Your task to perform on an android device: open app "ZOOM Cloud Meetings" (install if not already installed), go to login, and select forgot password Image 0: 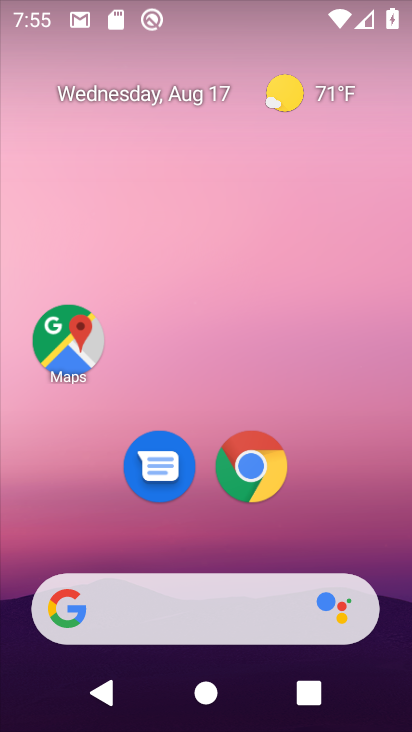
Step 0: drag from (228, 510) to (277, 5)
Your task to perform on an android device: open app "ZOOM Cloud Meetings" (install if not already installed), go to login, and select forgot password Image 1: 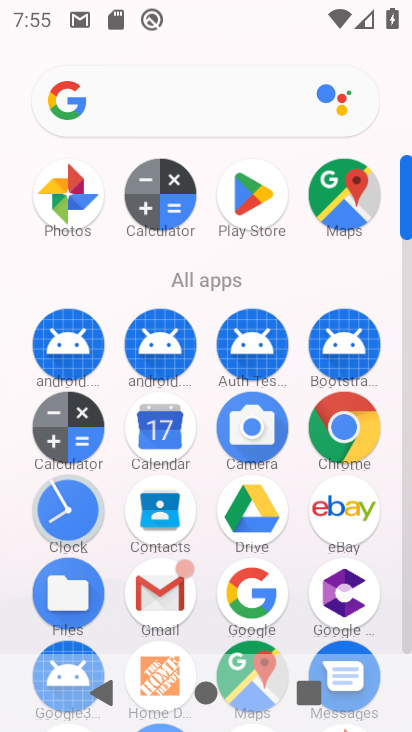
Step 1: click (251, 203)
Your task to perform on an android device: open app "ZOOM Cloud Meetings" (install if not already installed), go to login, and select forgot password Image 2: 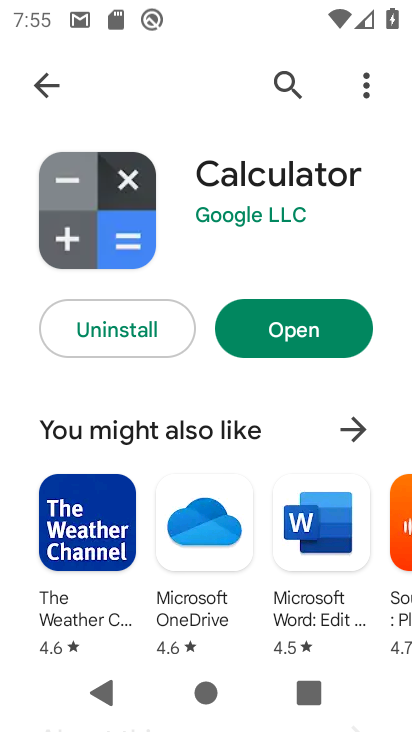
Step 2: click (44, 85)
Your task to perform on an android device: open app "ZOOM Cloud Meetings" (install if not already installed), go to login, and select forgot password Image 3: 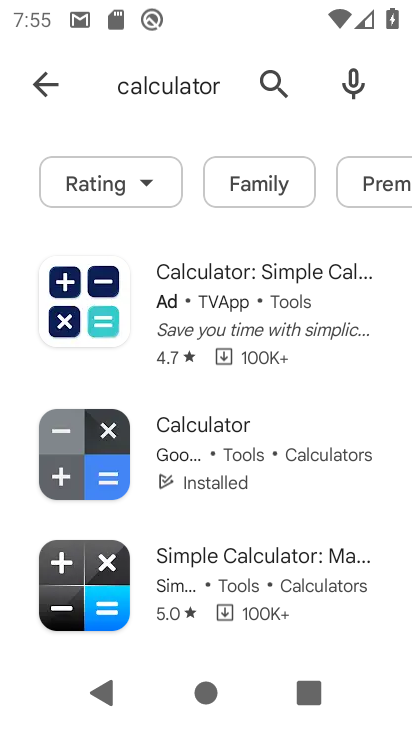
Step 3: click (152, 85)
Your task to perform on an android device: open app "ZOOM Cloud Meetings" (install if not already installed), go to login, and select forgot password Image 4: 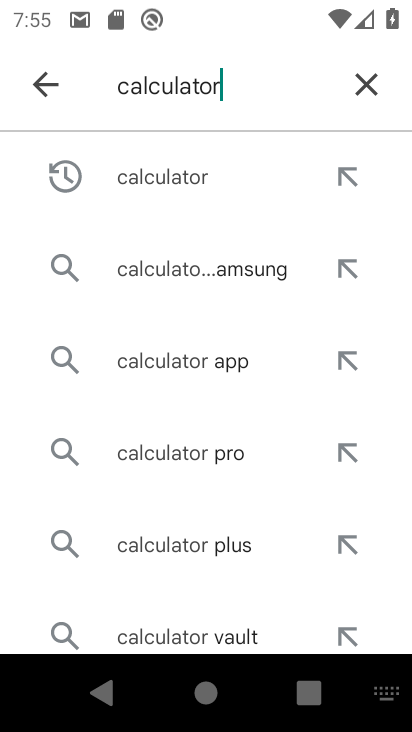
Step 4: click (370, 79)
Your task to perform on an android device: open app "ZOOM Cloud Meetings" (install if not already installed), go to login, and select forgot password Image 5: 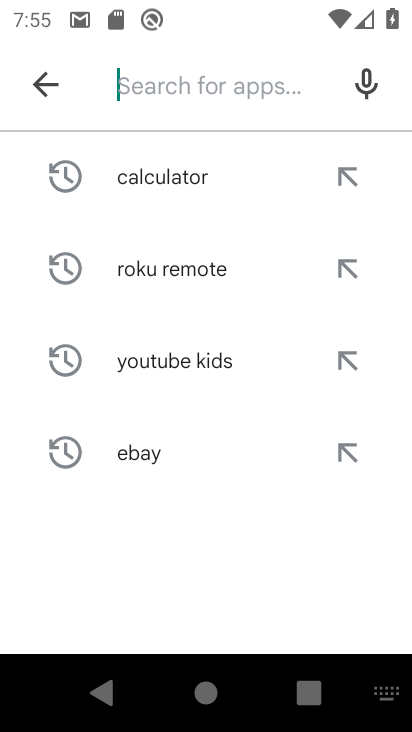
Step 5: type "zoom cloud meeting"
Your task to perform on an android device: open app "ZOOM Cloud Meetings" (install if not already installed), go to login, and select forgot password Image 6: 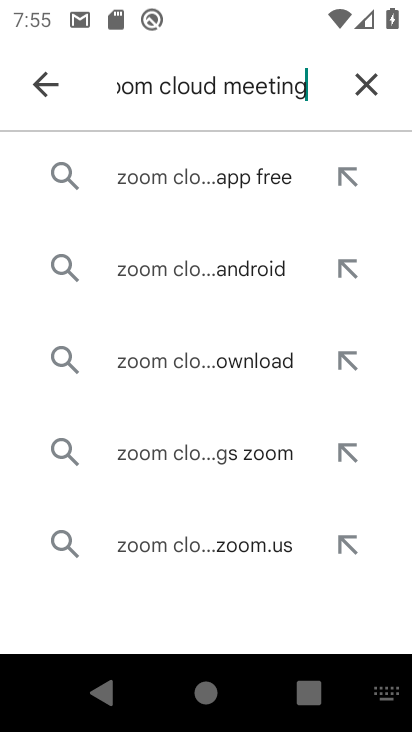
Step 6: click (208, 173)
Your task to perform on an android device: open app "ZOOM Cloud Meetings" (install if not already installed), go to login, and select forgot password Image 7: 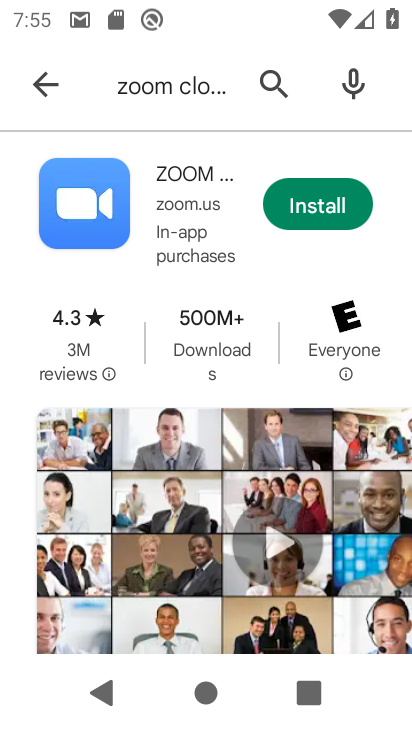
Step 7: click (280, 202)
Your task to perform on an android device: open app "ZOOM Cloud Meetings" (install if not already installed), go to login, and select forgot password Image 8: 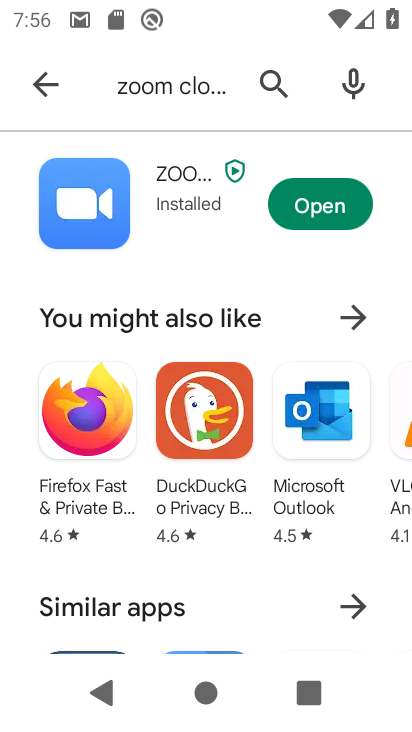
Step 8: click (323, 210)
Your task to perform on an android device: open app "ZOOM Cloud Meetings" (install if not already installed), go to login, and select forgot password Image 9: 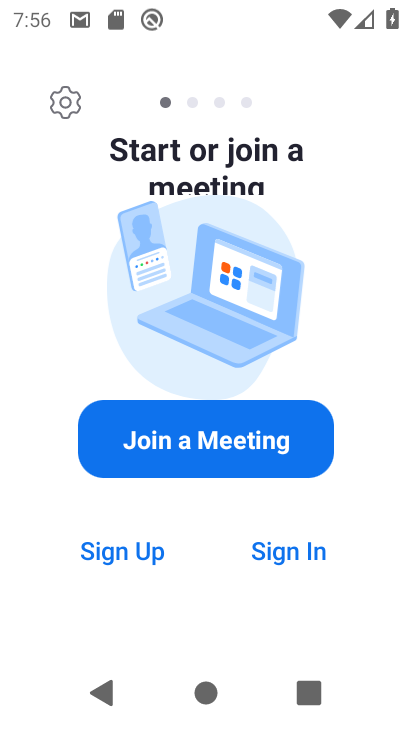
Step 9: click (114, 556)
Your task to perform on an android device: open app "ZOOM Cloud Meetings" (install if not already installed), go to login, and select forgot password Image 10: 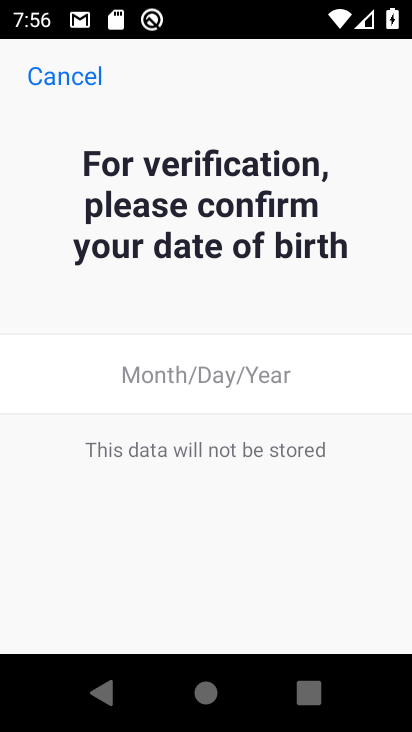
Step 10: click (56, 69)
Your task to perform on an android device: open app "ZOOM Cloud Meetings" (install if not already installed), go to login, and select forgot password Image 11: 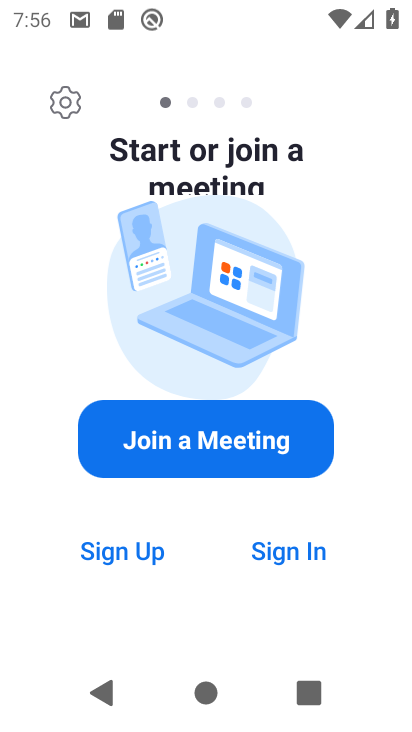
Step 11: click (272, 544)
Your task to perform on an android device: open app "ZOOM Cloud Meetings" (install if not already installed), go to login, and select forgot password Image 12: 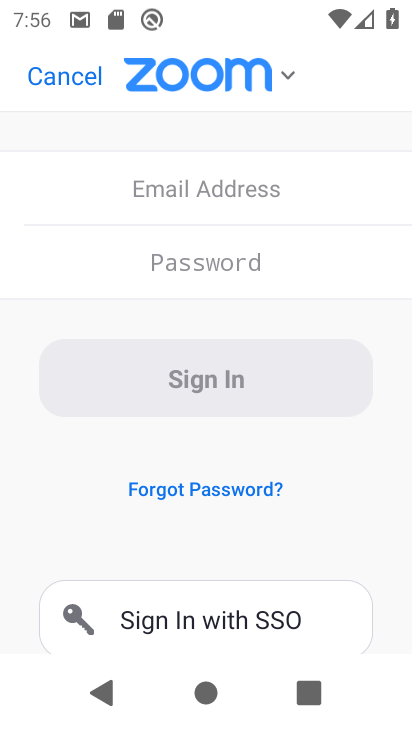
Step 12: click (253, 490)
Your task to perform on an android device: open app "ZOOM Cloud Meetings" (install if not already installed), go to login, and select forgot password Image 13: 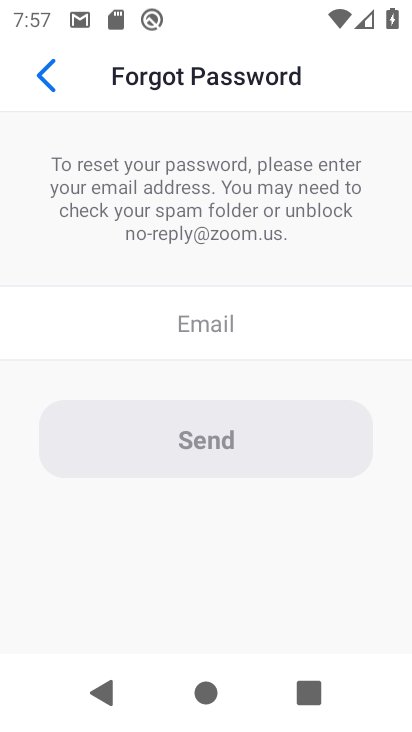
Step 13: task complete